Your task to perform on an android device: Search for macbook pro on bestbuy, select the first entry, and add it to the cart. Image 0: 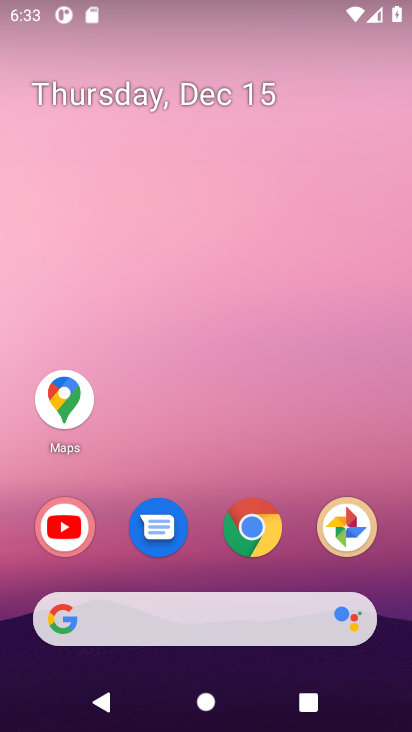
Step 0: click (248, 534)
Your task to perform on an android device: Search for macbook pro on bestbuy, select the first entry, and add it to the cart. Image 1: 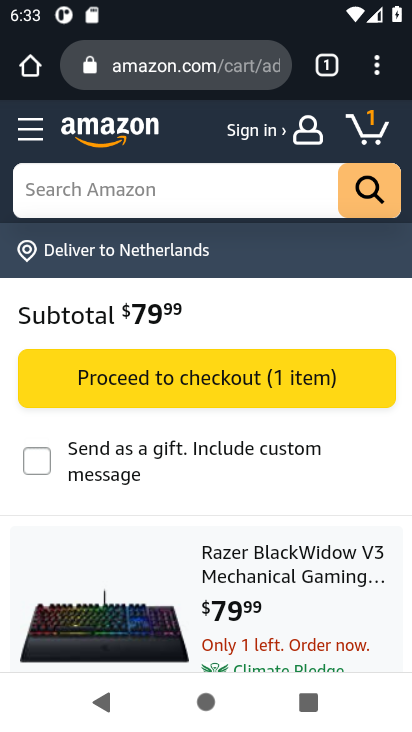
Step 1: click (234, 77)
Your task to perform on an android device: Search for macbook pro on bestbuy, select the first entry, and add it to the cart. Image 2: 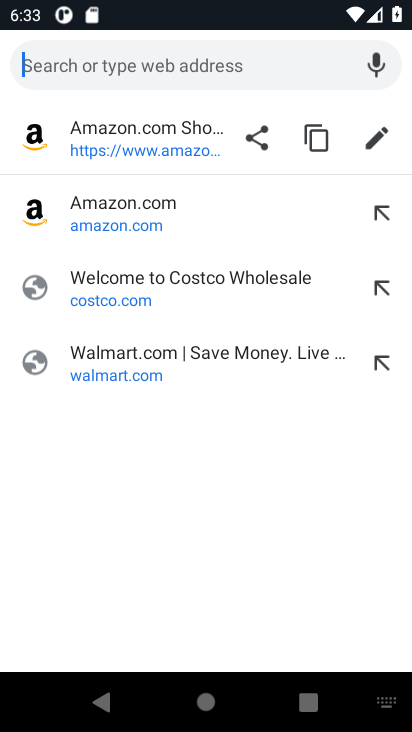
Step 2: type "bestbuy"
Your task to perform on an android device: Search for macbook pro on bestbuy, select the first entry, and add it to the cart. Image 3: 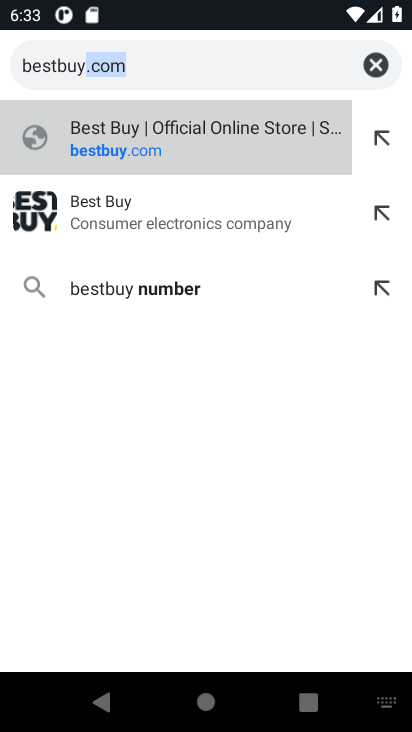
Step 3: click (133, 158)
Your task to perform on an android device: Search for macbook pro on bestbuy, select the first entry, and add it to the cart. Image 4: 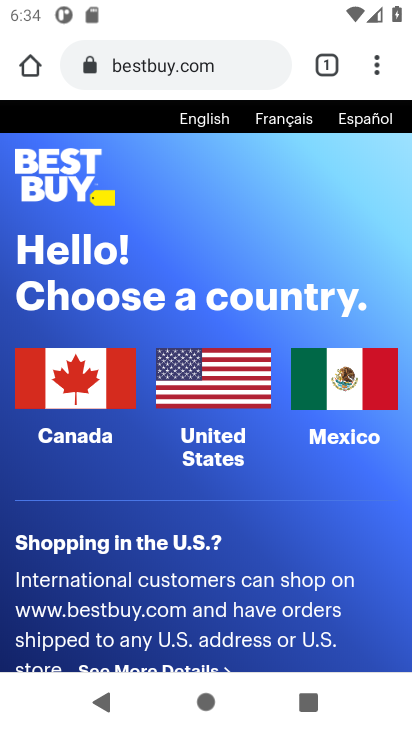
Step 4: click (71, 394)
Your task to perform on an android device: Search for macbook pro on bestbuy, select the first entry, and add it to the cart. Image 5: 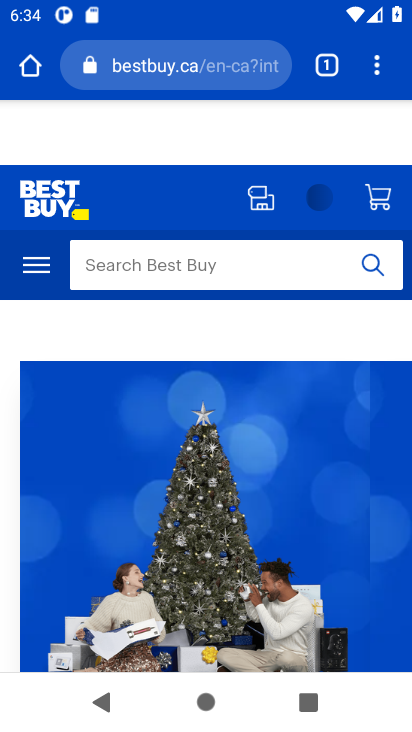
Step 5: click (115, 274)
Your task to perform on an android device: Search for macbook pro on bestbuy, select the first entry, and add it to the cart. Image 6: 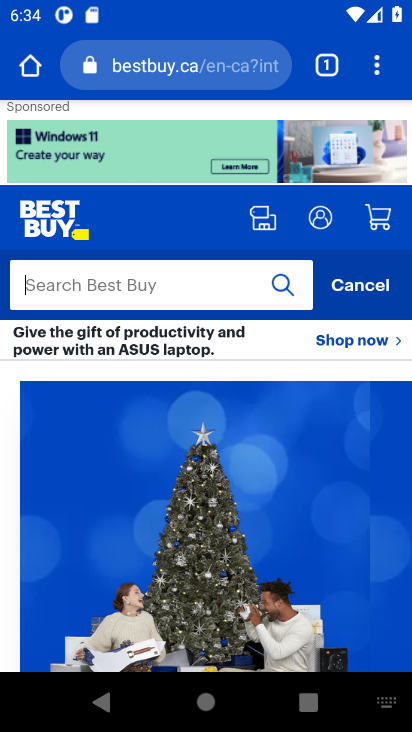
Step 6: type "macbook pro"
Your task to perform on an android device: Search for macbook pro on bestbuy, select the first entry, and add it to the cart. Image 7: 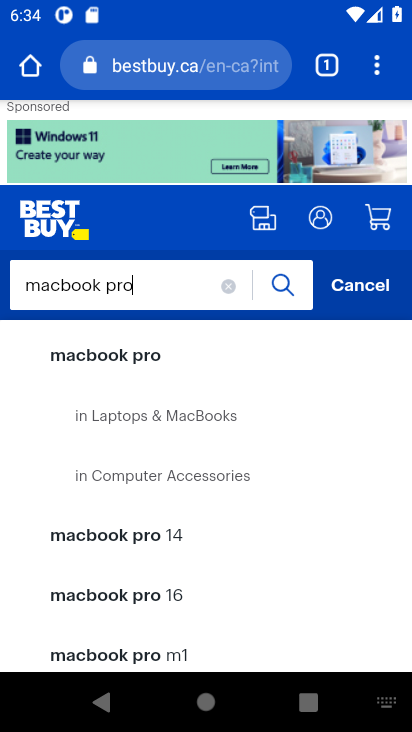
Step 7: click (98, 367)
Your task to perform on an android device: Search for macbook pro on bestbuy, select the first entry, and add it to the cart. Image 8: 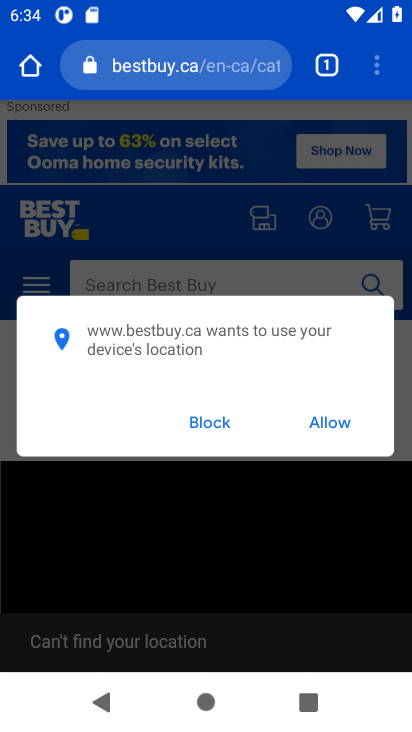
Step 8: task complete